Your task to perform on an android device: Do I have any events tomorrow? Image 0: 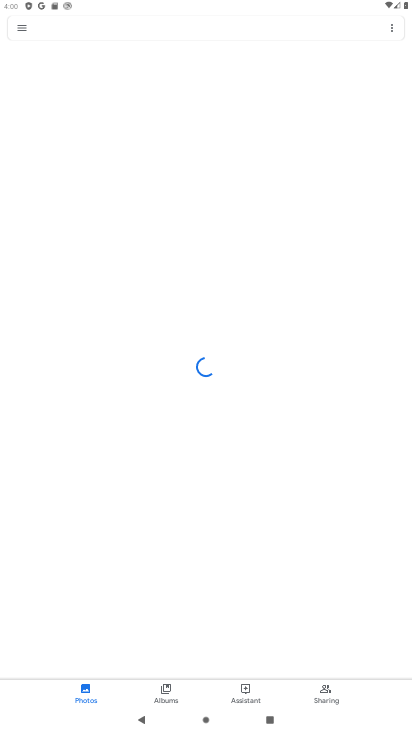
Step 0: press home button
Your task to perform on an android device: Do I have any events tomorrow? Image 1: 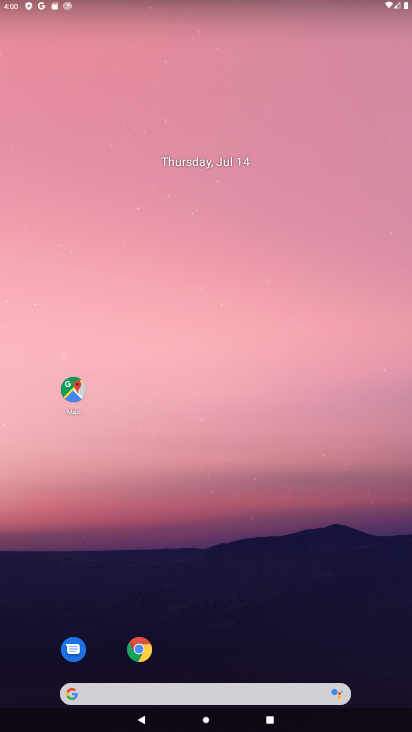
Step 1: drag from (162, 694) to (275, 137)
Your task to perform on an android device: Do I have any events tomorrow? Image 2: 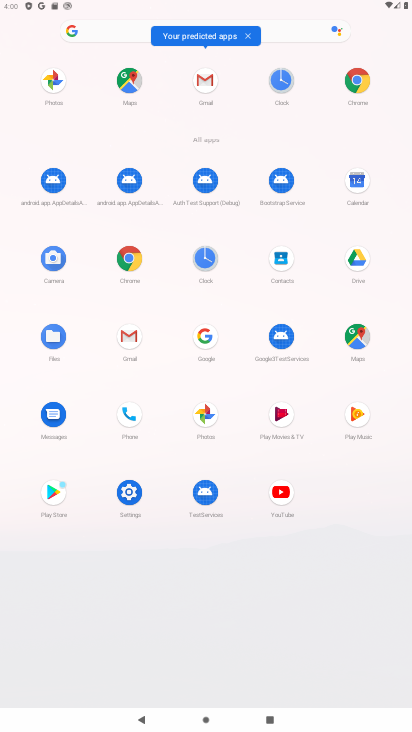
Step 2: click (360, 187)
Your task to perform on an android device: Do I have any events tomorrow? Image 3: 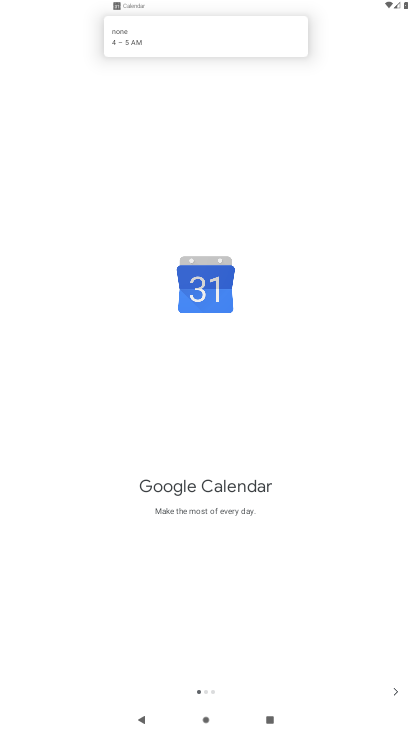
Step 3: click (397, 686)
Your task to perform on an android device: Do I have any events tomorrow? Image 4: 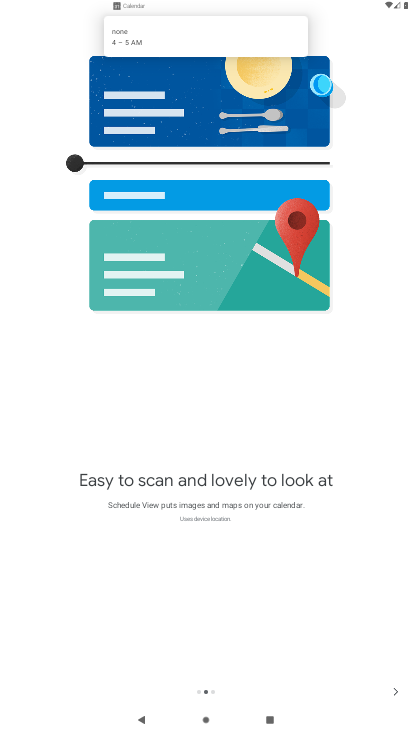
Step 4: click (393, 702)
Your task to perform on an android device: Do I have any events tomorrow? Image 5: 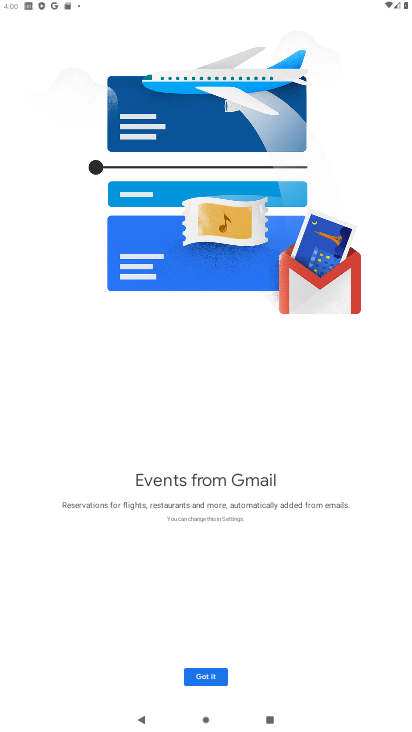
Step 5: click (210, 673)
Your task to perform on an android device: Do I have any events tomorrow? Image 6: 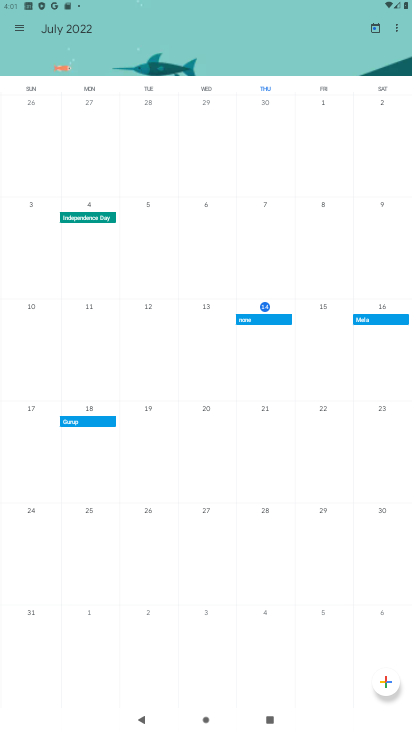
Step 6: click (16, 24)
Your task to perform on an android device: Do I have any events tomorrow? Image 7: 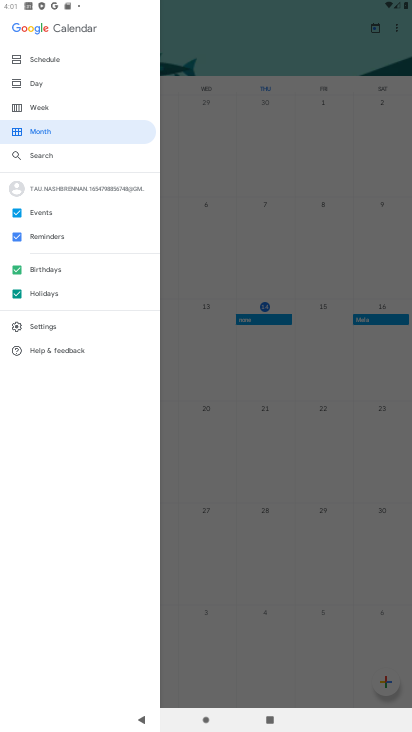
Step 7: click (60, 61)
Your task to perform on an android device: Do I have any events tomorrow? Image 8: 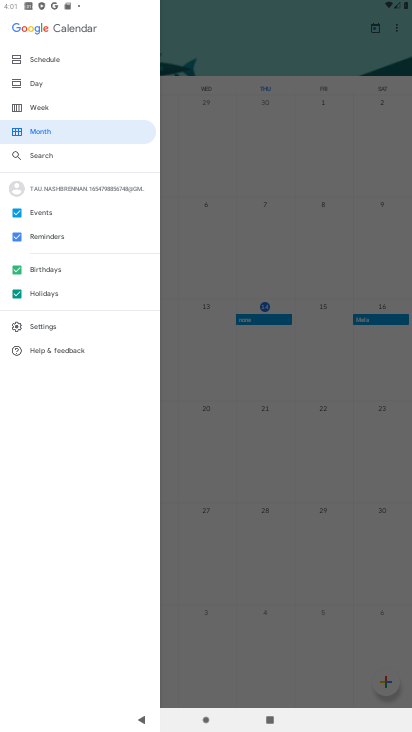
Step 8: click (60, 61)
Your task to perform on an android device: Do I have any events tomorrow? Image 9: 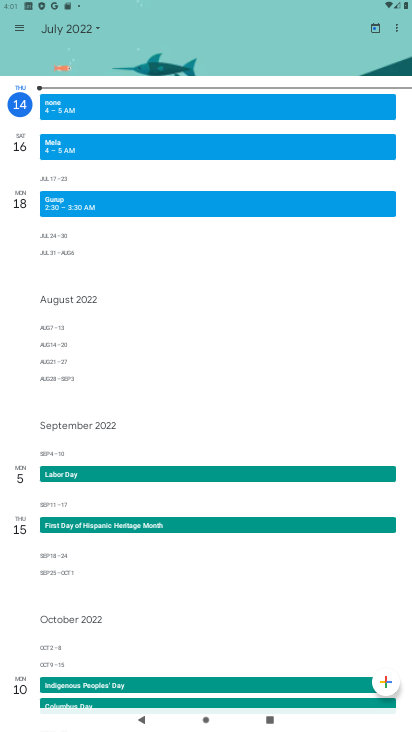
Step 9: click (68, 26)
Your task to perform on an android device: Do I have any events tomorrow? Image 10: 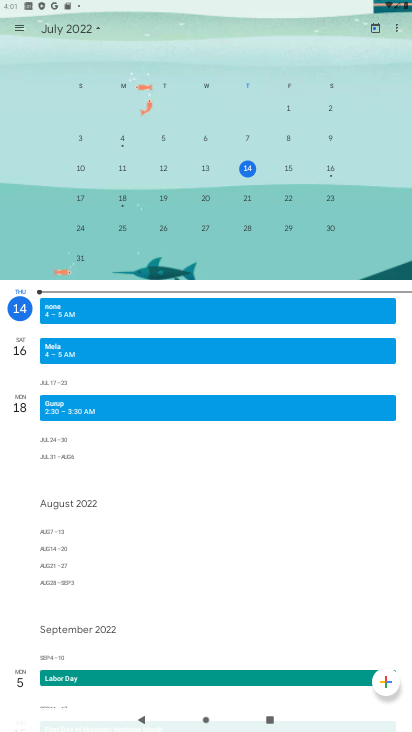
Step 10: click (286, 171)
Your task to perform on an android device: Do I have any events tomorrow? Image 11: 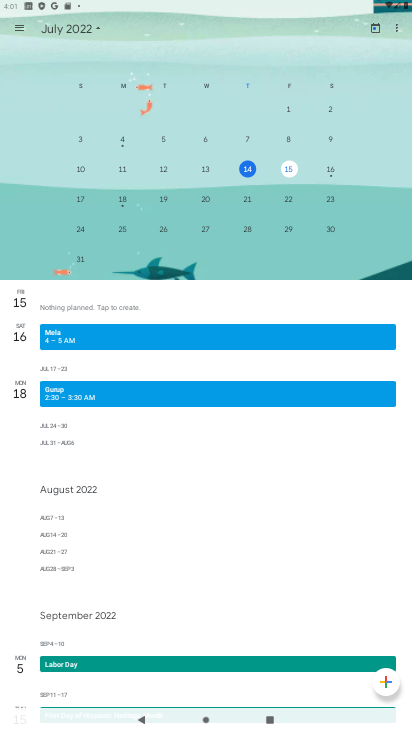
Step 11: task complete